Your task to perform on an android device: open a bookmark in the chrome app Image 0: 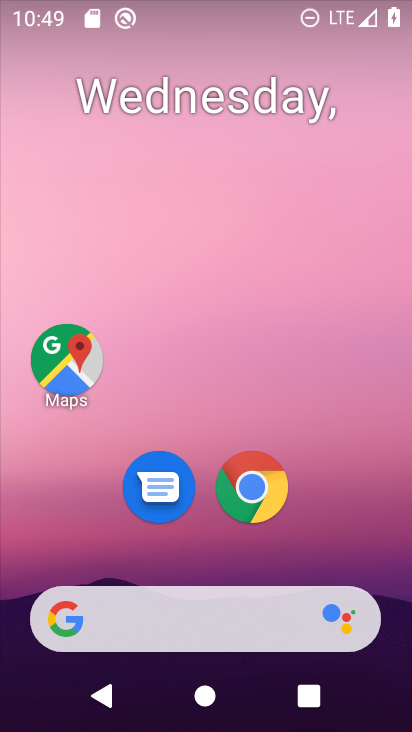
Step 0: click (258, 490)
Your task to perform on an android device: open a bookmark in the chrome app Image 1: 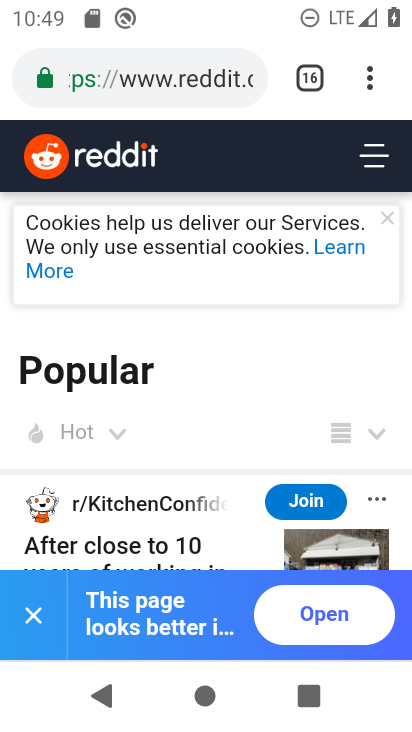
Step 1: click (367, 70)
Your task to perform on an android device: open a bookmark in the chrome app Image 2: 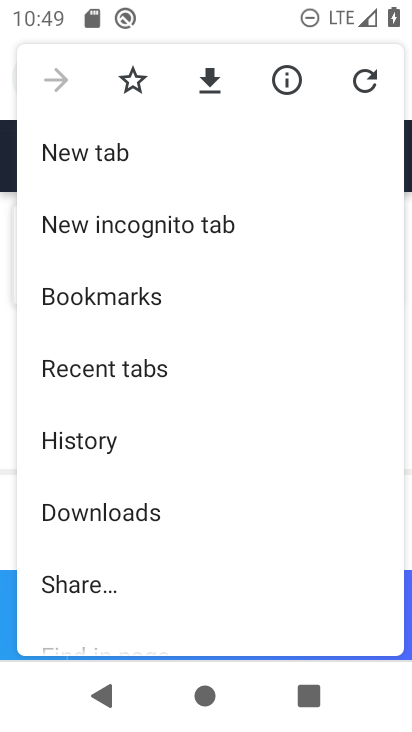
Step 2: click (117, 297)
Your task to perform on an android device: open a bookmark in the chrome app Image 3: 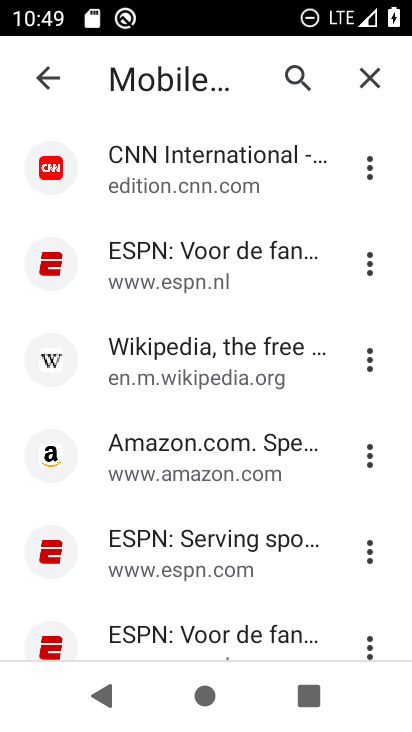
Step 3: task complete